Your task to perform on an android device: Open Google Chrome and click the shortcut for Amazon.com Image 0: 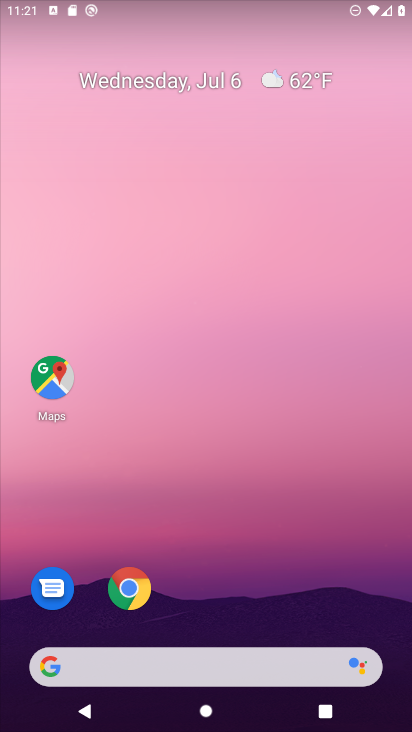
Step 0: click (131, 587)
Your task to perform on an android device: Open Google Chrome and click the shortcut for Amazon.com Image 1: 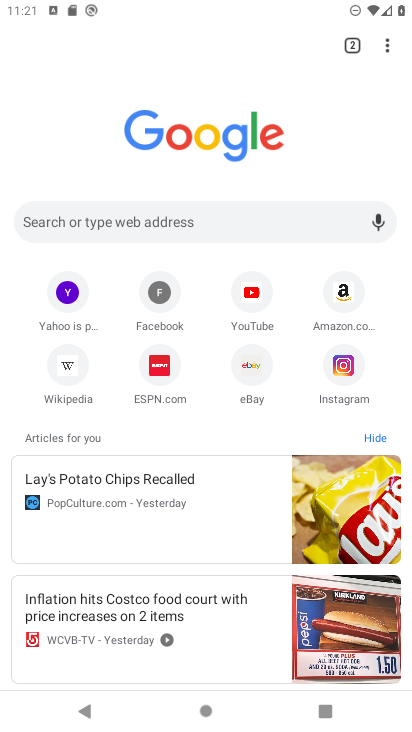
Step 1: click (385, 51)
Your task to perform on an android device: Open Google Chrome and click the shortcut for Amazon.com Image 2: 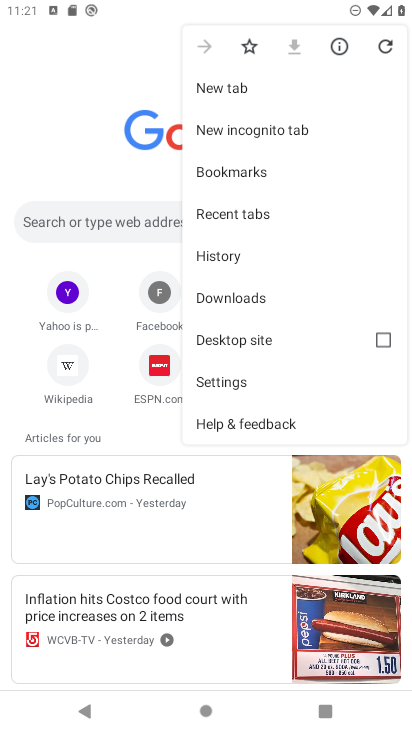
Step 2: click (95, 177)
Your task to perform on an android device: Open Google Chrome and click the shortcut for Amazon.com Image 3: 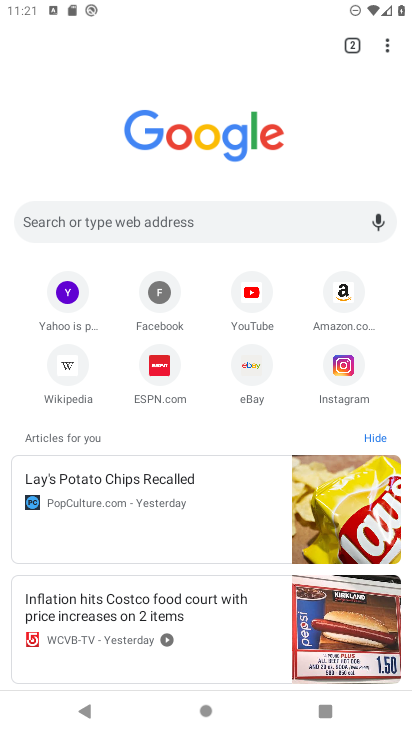
Step 3: click (345, 289)
Your task to perform on an android device: Open Google Chrome and click the shortcut for Amazon.com Image 4: 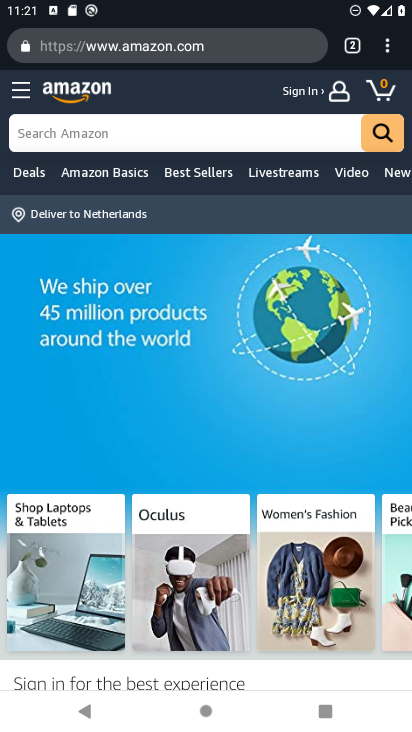
Step 4: task complete